Your task to perform on an android device: Show me popular games on the Play Store Image 0: 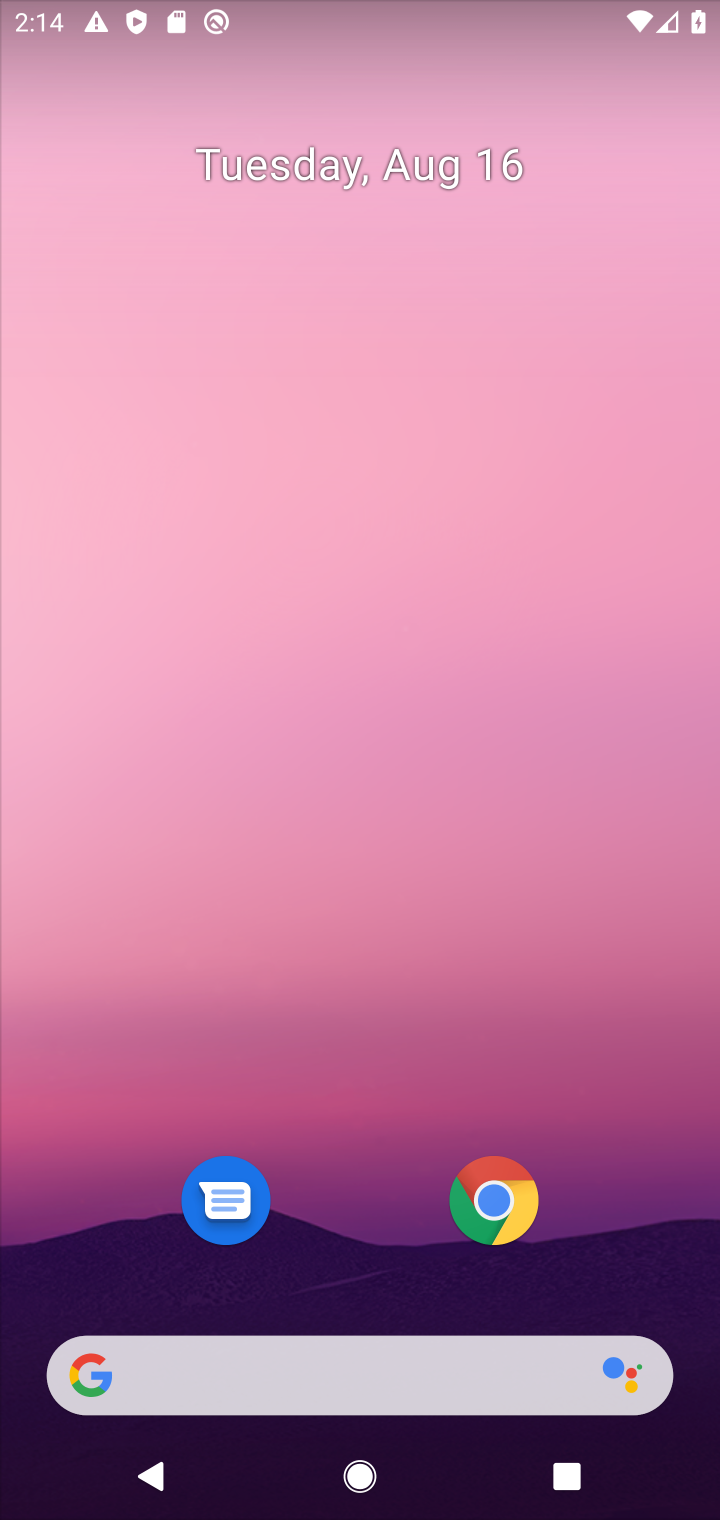
Step 0: drag from (54, 1473) to (455, 666)
Your task to perform on an android device: Show me popular games on the Play Store Image 1: 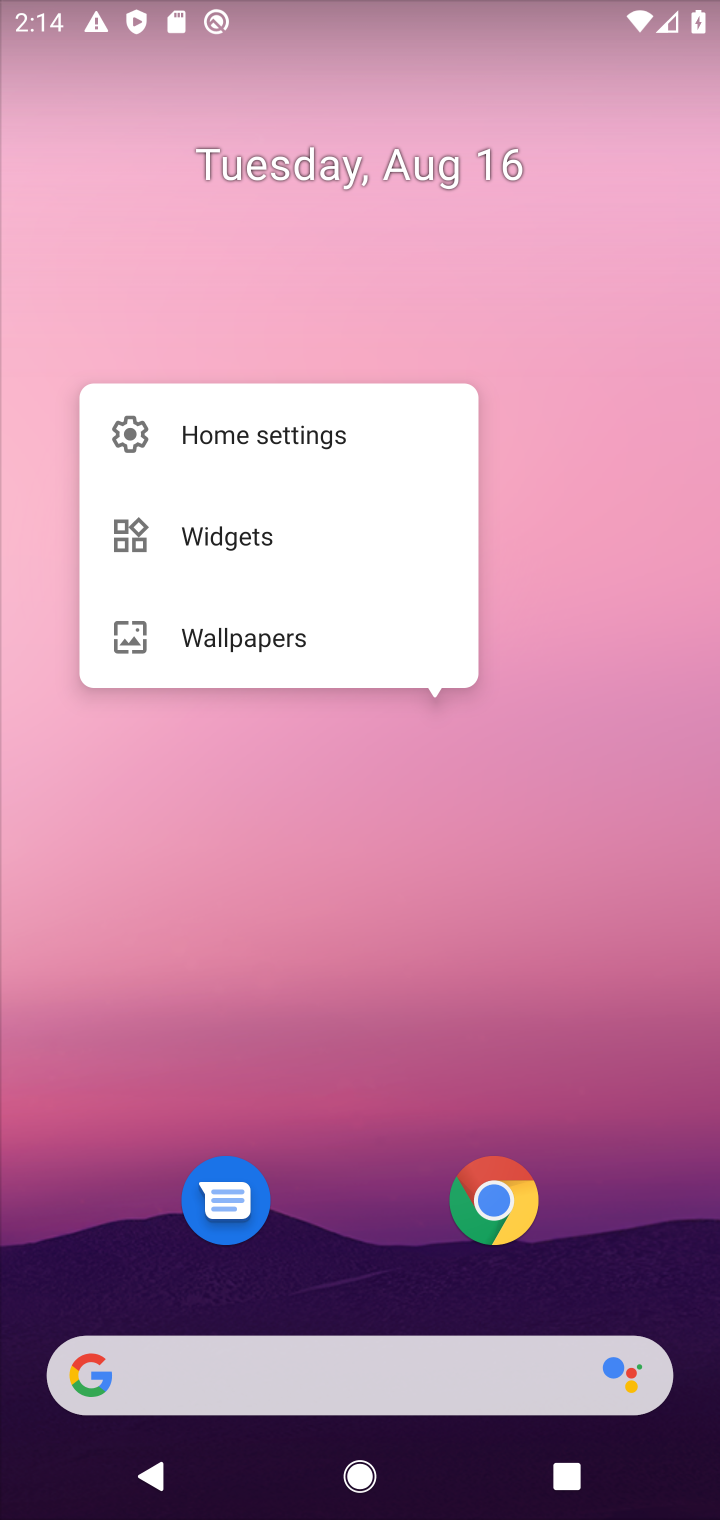
Step 1: task complete